Your task to perform on an android device: turn on showing notifications on the lock screen Image 0: 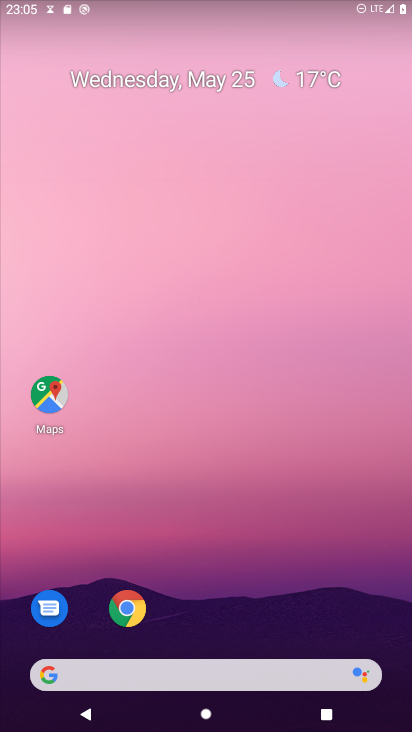
Step 0: drag from (316, 573) to (205, 26)
Your task to perform on an android device: turn on showing notifications on the lock screen Image 1: 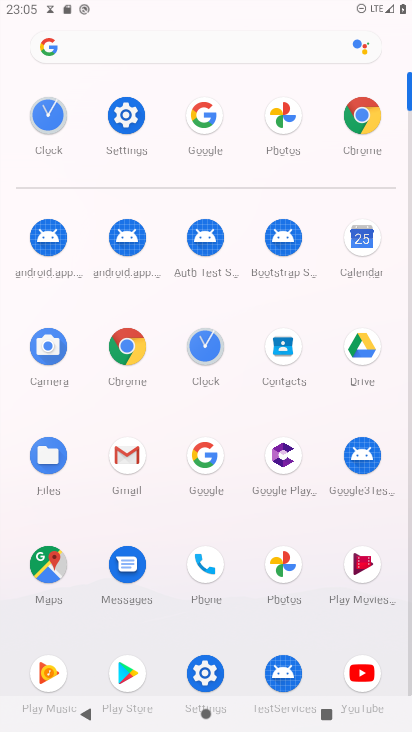
Step 1: click (117, 119)
Your task to perform on an android device: turn on showing notifications on the lock screen Image 2: 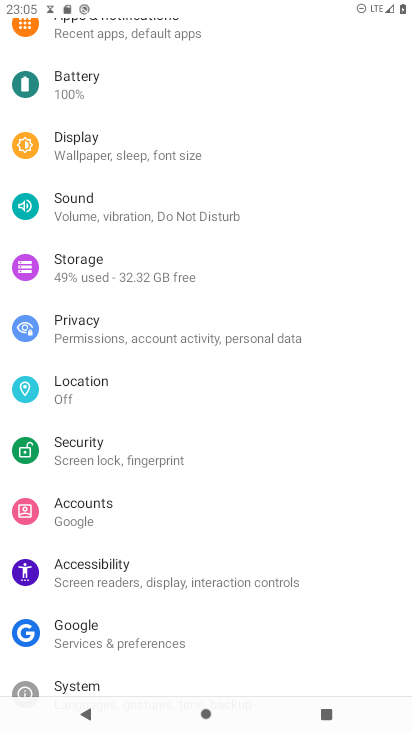
Step 2: drag from (215, 127) to (222, 462)
Your task to perform on an android device: turn on showing notifications on the lock screen Image 3: 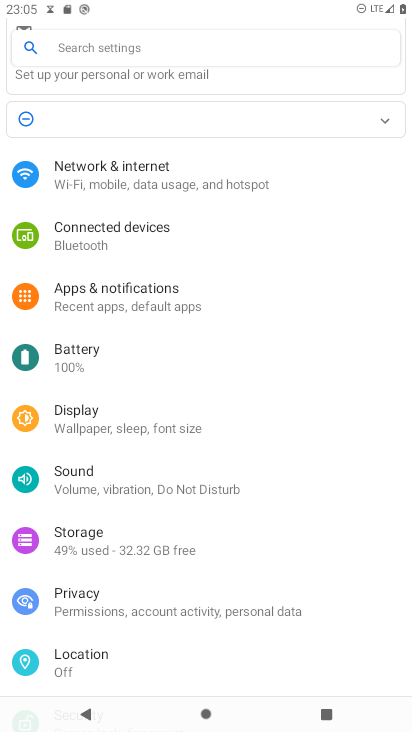
Step 3: click (189, 305)
Your task to perform on an android device: turn on showing notifications on the lock screen Image 4: 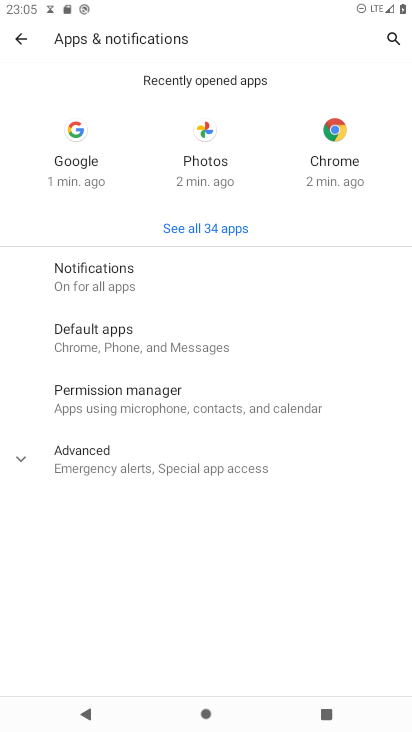
Step 4: click (178, 288)
Your task to perform on an android device: turn on showing notifications on the lock screen Image 5: 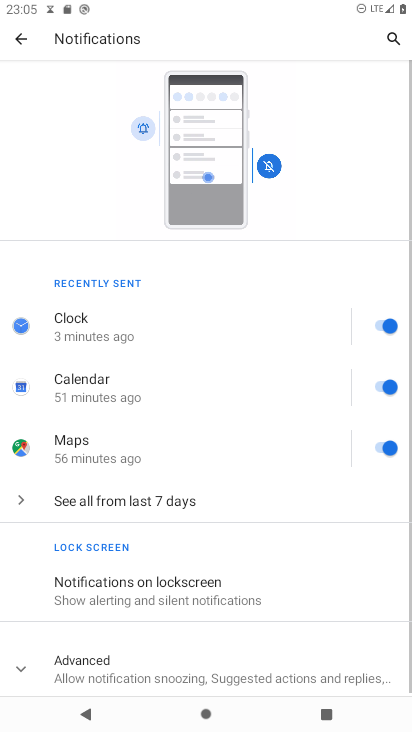
Step 5: click (217, 608)
Your task to perform on an android device: turn on showing notifications on the lock screen Image 6: 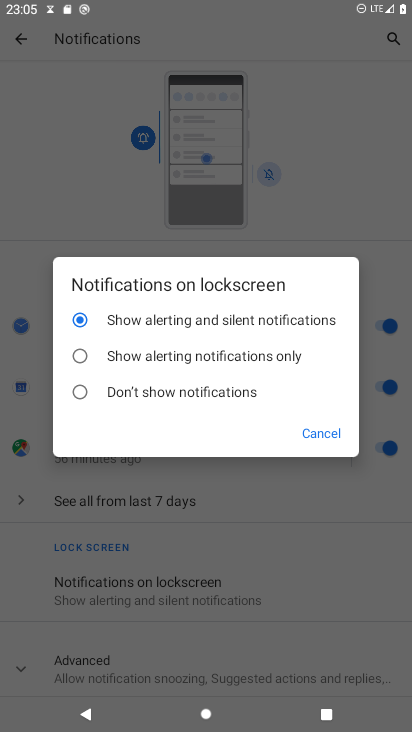
Step 6: task complete